Your task to perform on an android device: turn on sleep mode Image 0: 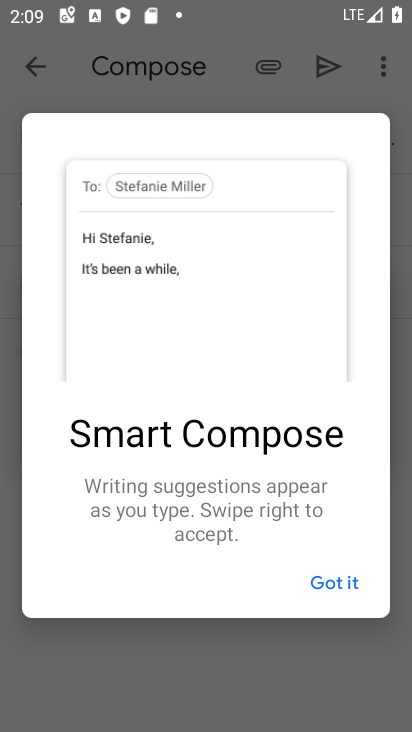
Step 0: press home button
Your task to perform on an android device: turn on sleep mode Image 1: 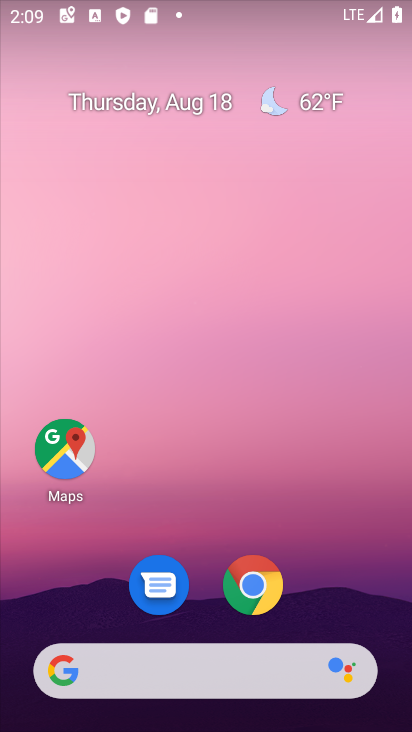
Step 1: drag from (273, 499) to (258, 1)
Your task to perform on an android device: turn on sleep mode Image 2: 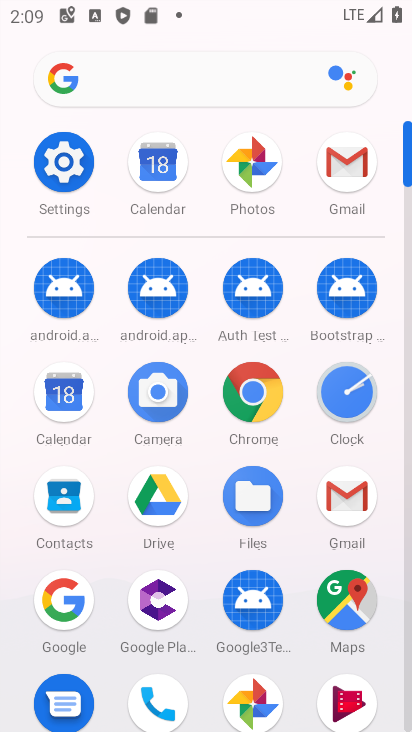
Step 2: click (67, 164)
Your task to perform on an android device: turn on sleep mode Image 3: 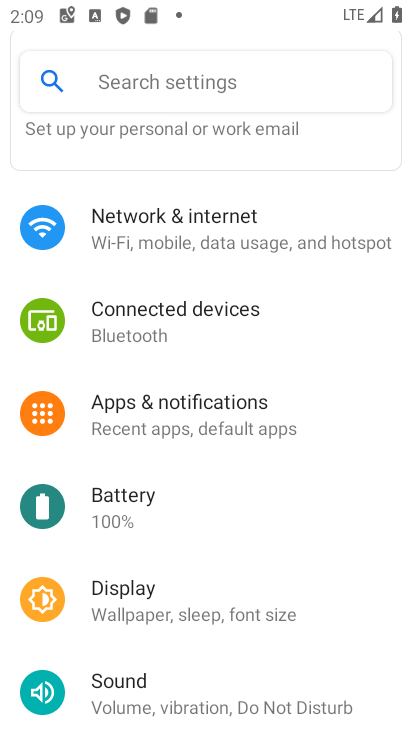
Step 3: click (161, 612)
Your task to perform on an android device: turn on sleep mode Image 4: 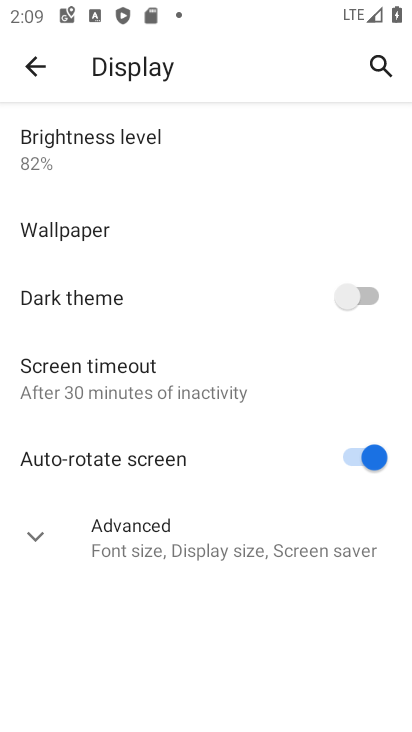
Step 4: click (33, 528)
Your task to perform on an android device: turn on sleep mode Image 5: 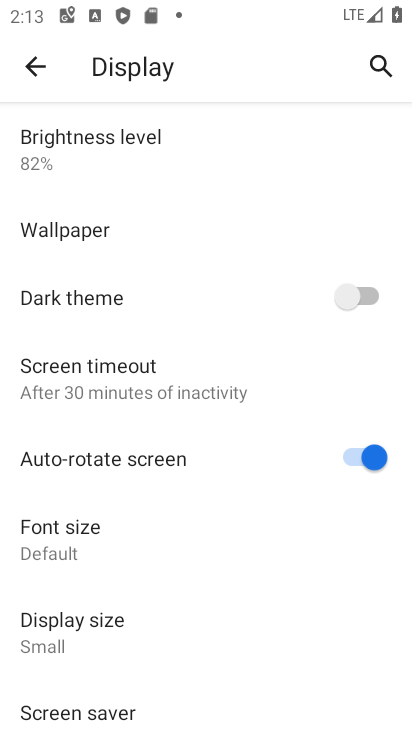
Step 5: task complete